Your task to perform on an android device: open a bookmark in the chrome app Image 0: 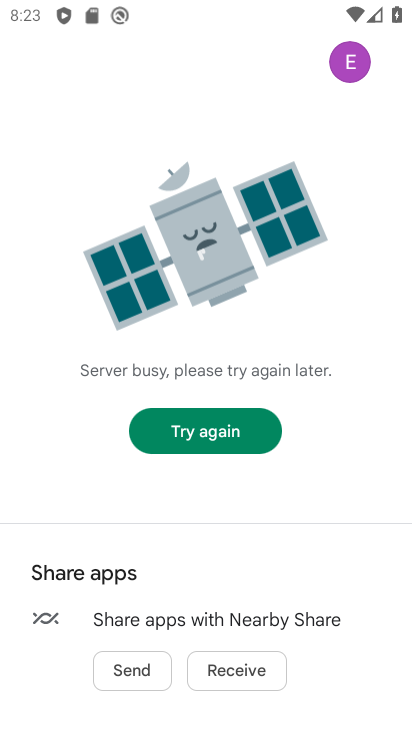
Step 0: press home button
Your task to perform on an android device: open a bookmark in the chrome app Image 1: 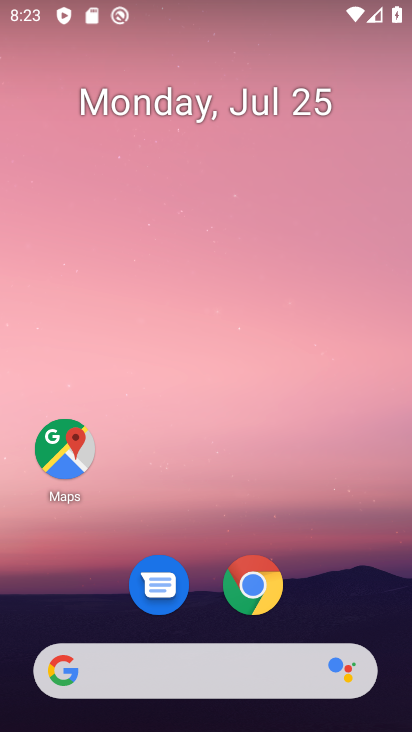
Step 1: click (248, 594)
Your task to perform on an android device: open a bookmark in the chrome app Image 2: 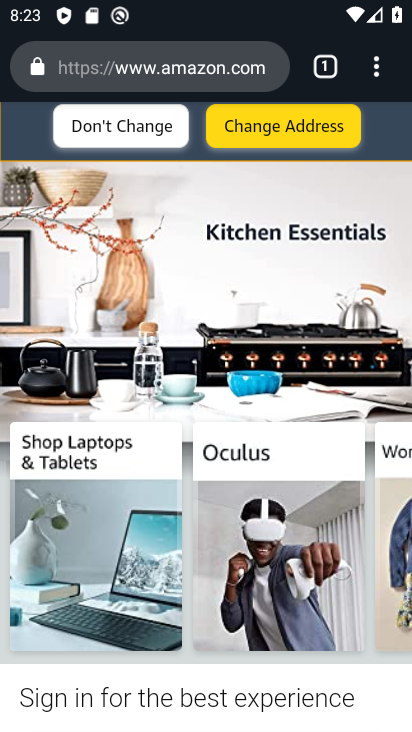
Step 2: task complete